Your task to perform on an android device: toggle wifi Image 0: 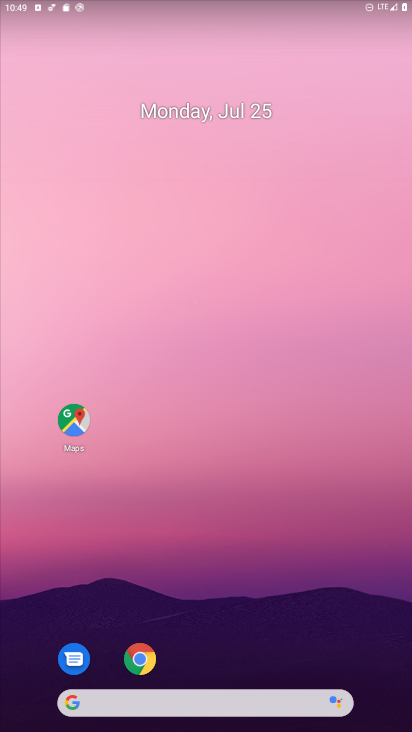
Step 0: drag from (195, 647) to (171, 140)
Your task to perform on an android device: toggle wifi Image 1: 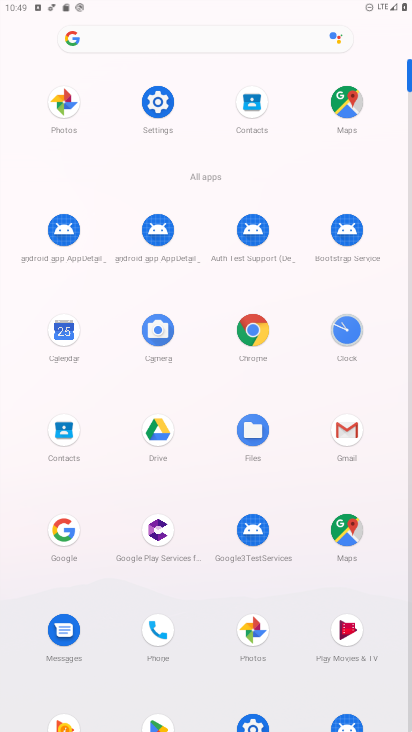
Step 1: click (171, 131)
Your task to perform on an android device: toggle wifi Image 2: 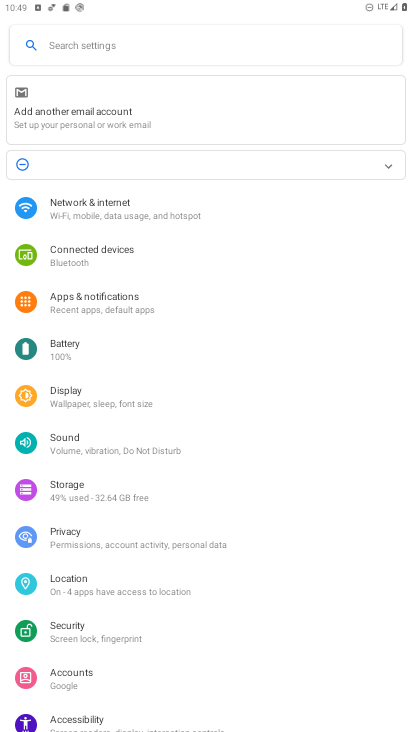
Step 2: click (79, 199)
Your task to perform on an android device: toggle wifi Image 3: 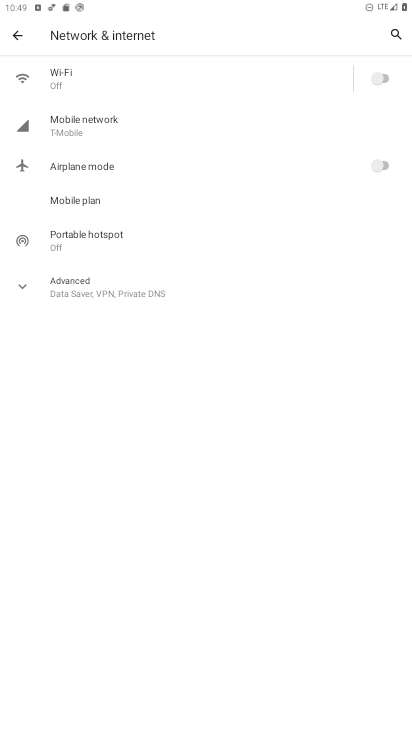
Step 3: click (391, 88)
Your task to perform on an android device: toggle wifi Image 4: 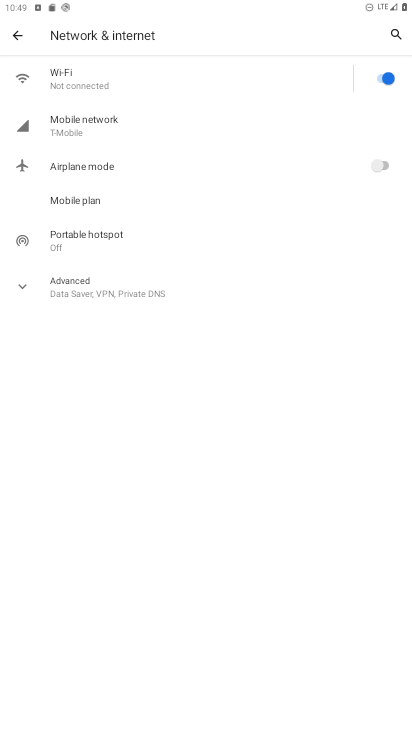
Step 4: task complete